Your task to perform on an android device: turn off location Image 0: 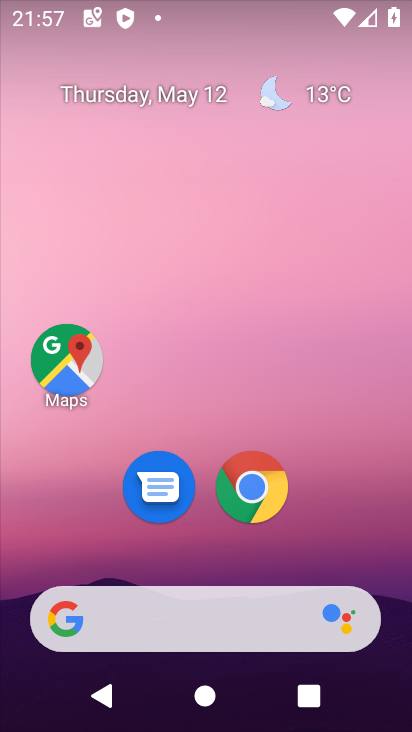
Step 0: drag from (203, 540) to (273, 101)
Your task to perform on an android device: turn off location Image 1: 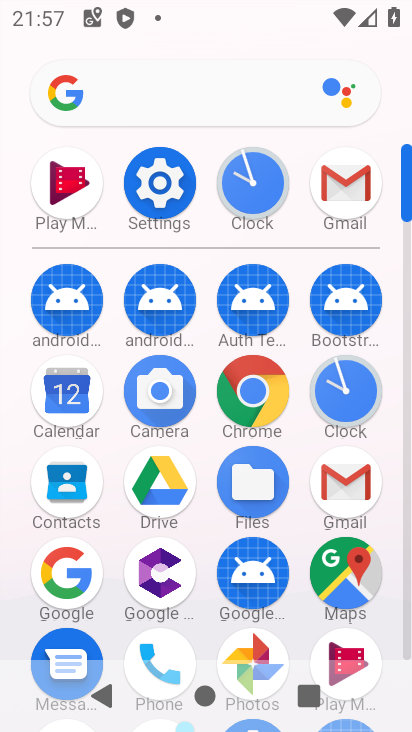
Step 1: click (161, 169)
Your task to perform on an android device: turn off location Image 2: 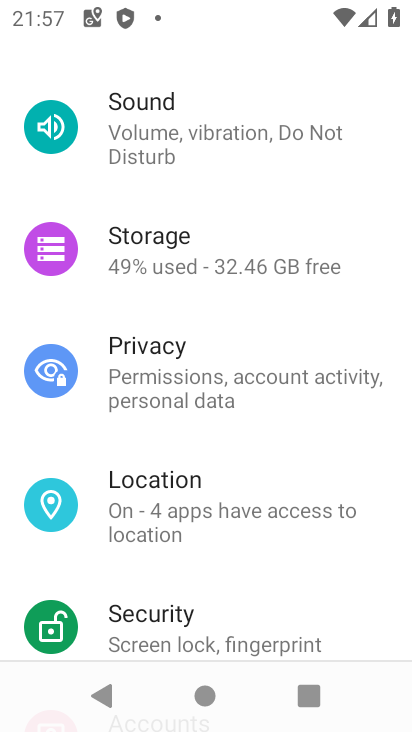
Step 2: click (139, 512)
Your task to perform on an android device: turn off location Image 3: 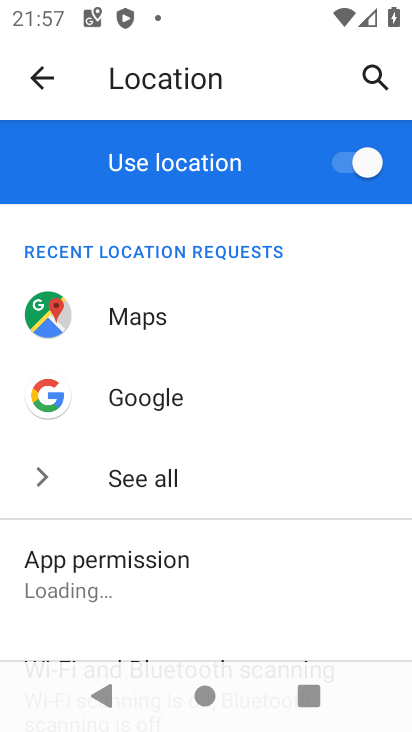
Step 3: click (344, 163)
Your task to perform on an android device: turn off location Image 4: 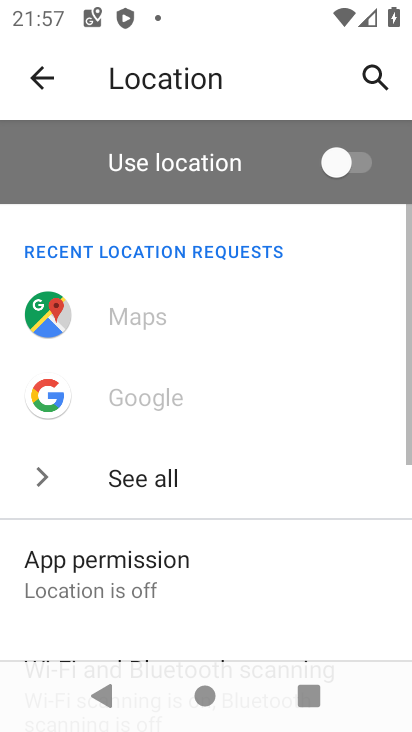
Step 4: task complete